Your task to perform on an android device: turn off javascript in the chrome app Image 0: 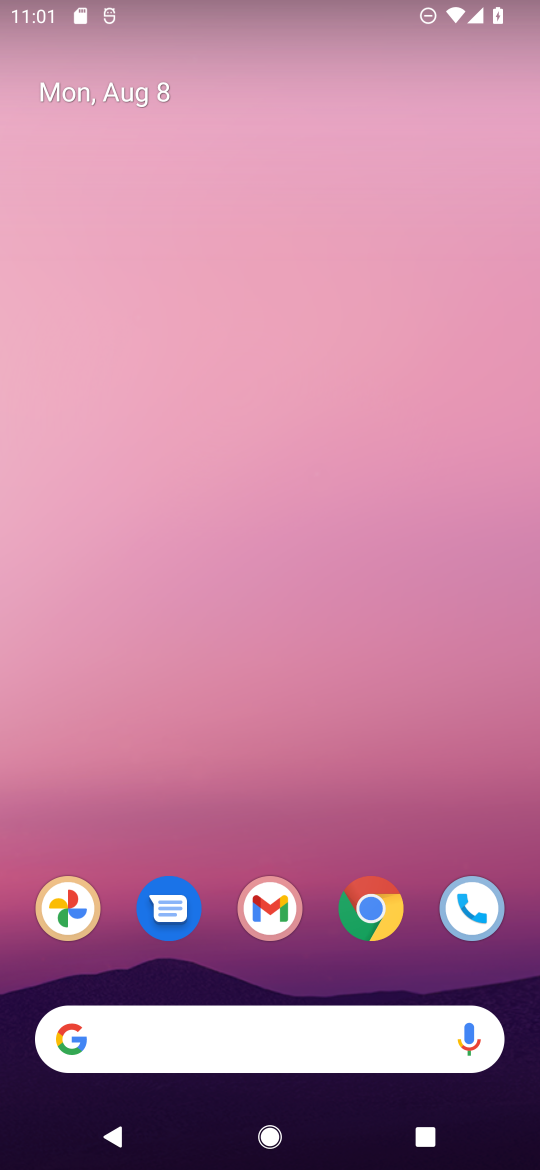
Step 0: click (377, 904)
Your task to perform on an android device: turn off javascript in the chrome app Image 1: 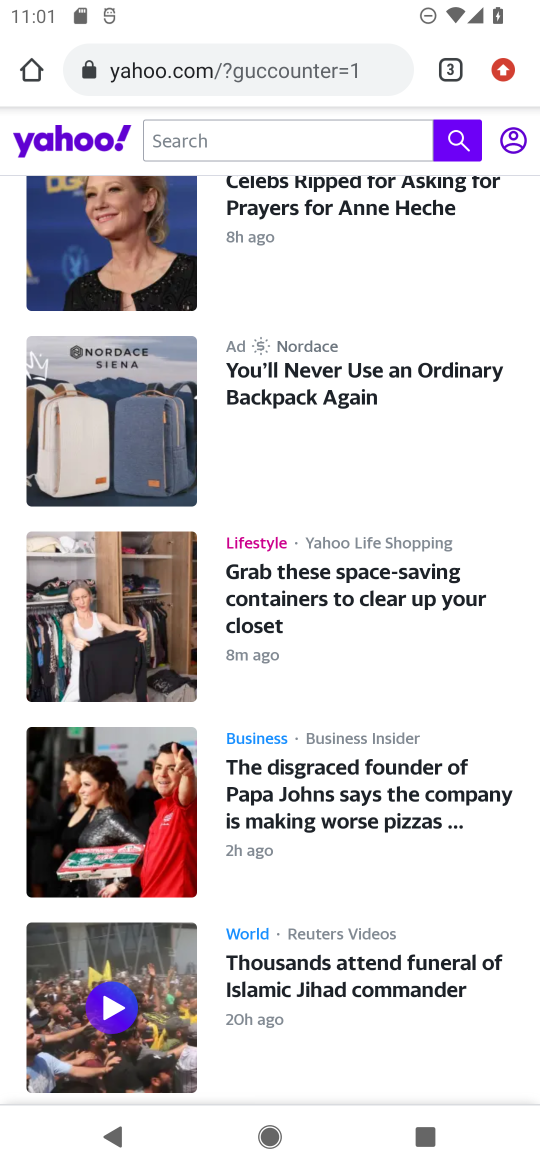
Step 1: press home button
Your task to perform on an android device: turn off javascript in the chrome app Image 2: 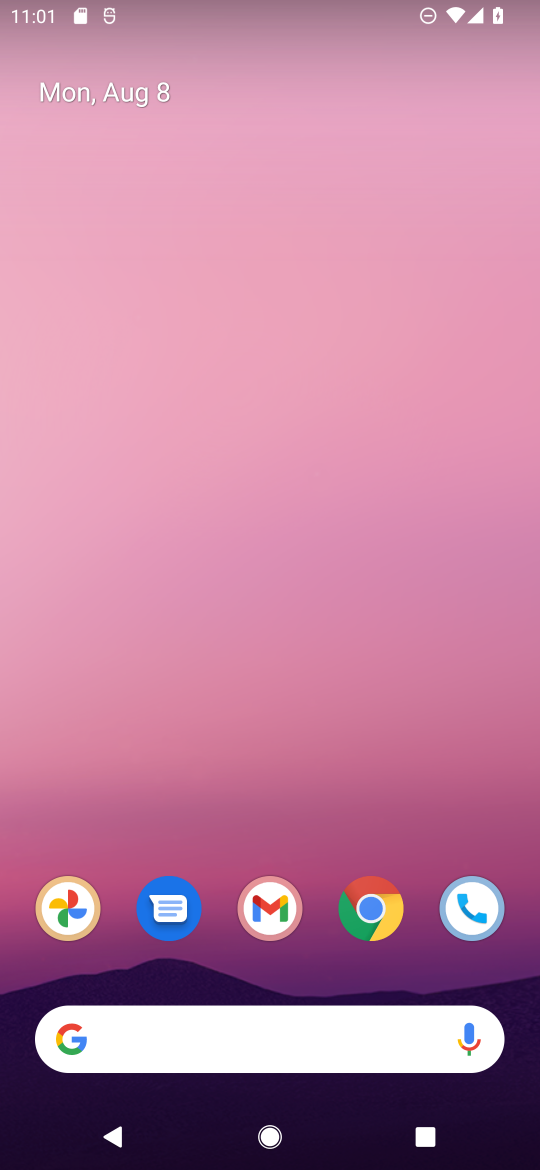
Step 2: click (368, 900)
Your task to perform on an android device: turn off javascript in the chrome app Image 3: 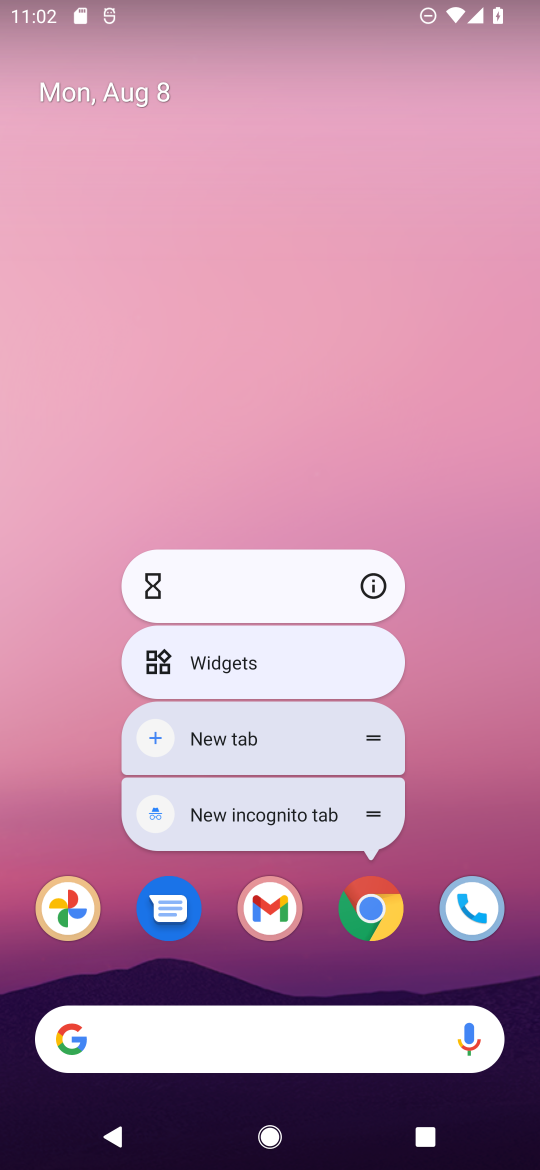
Step 3: click (427, 838)
Your task to perform on an android device: turn off javascript in the chrome app Image 4: 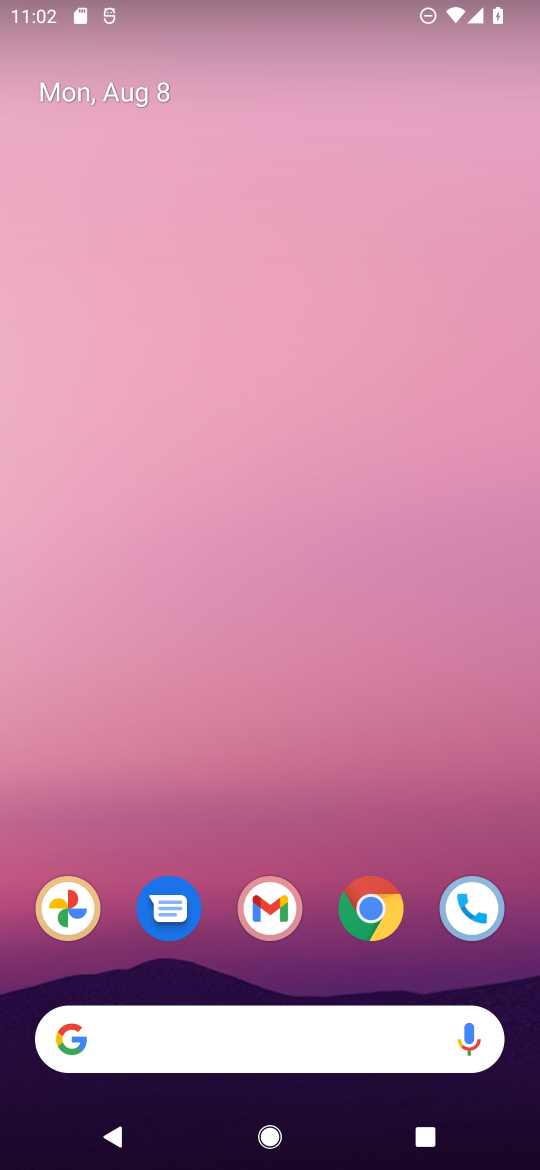
Step 4: drag from (478, 811) to (537, 160)
Your task to perform on an android device: turn off javascript in the chrome app Image 5: 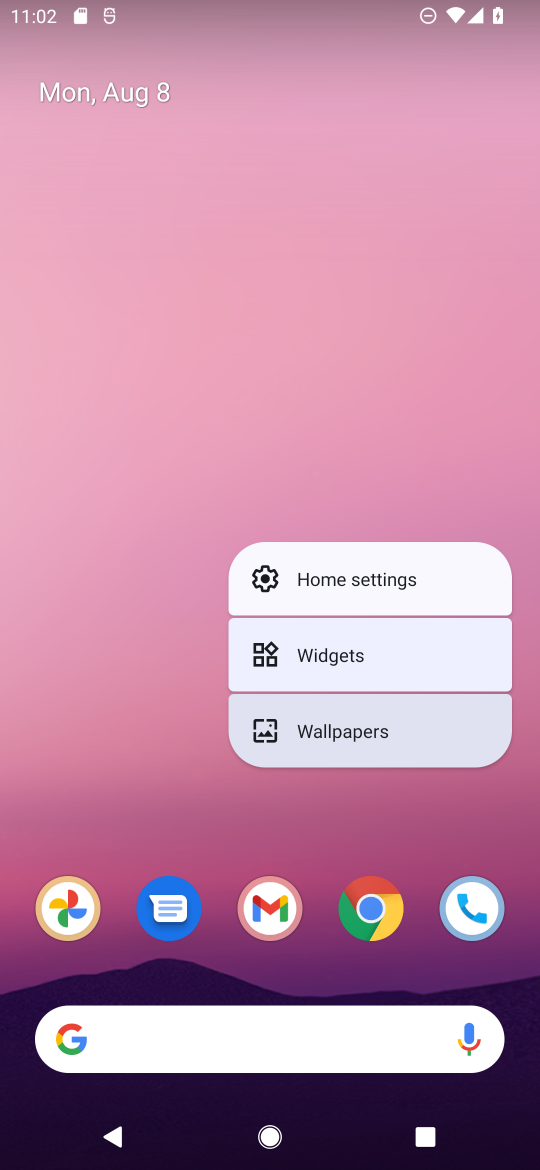
Step 5: click (161, 742)
Your task to perform on an android device: turn off javascript in the chrome app Image 6: 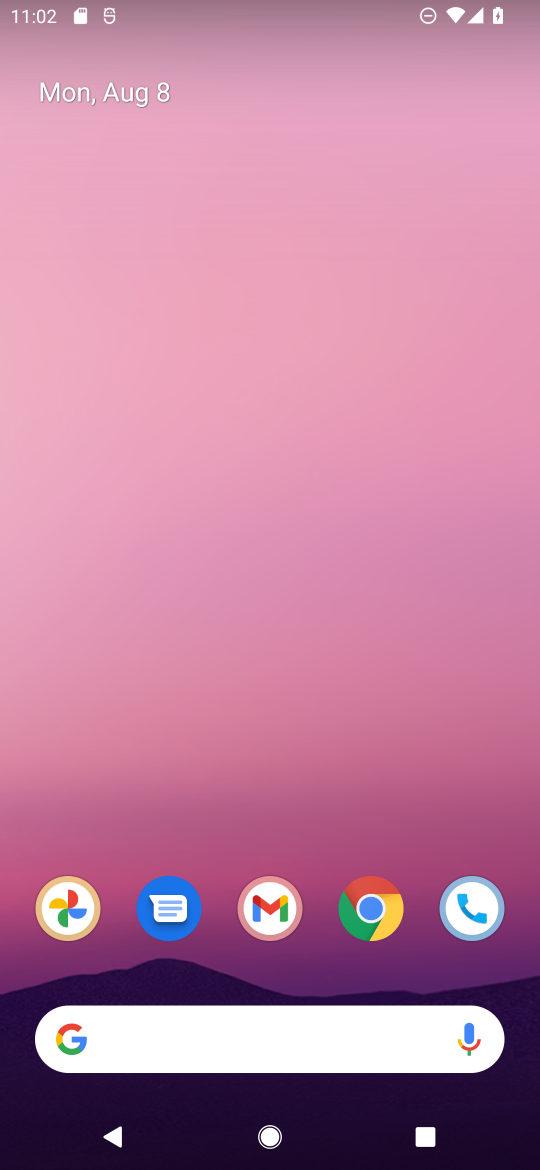
Step 6: drag from (196, 816) to (331, 23)
Your task to perform on an android device: turn off javascript in the chrome app Image 7: 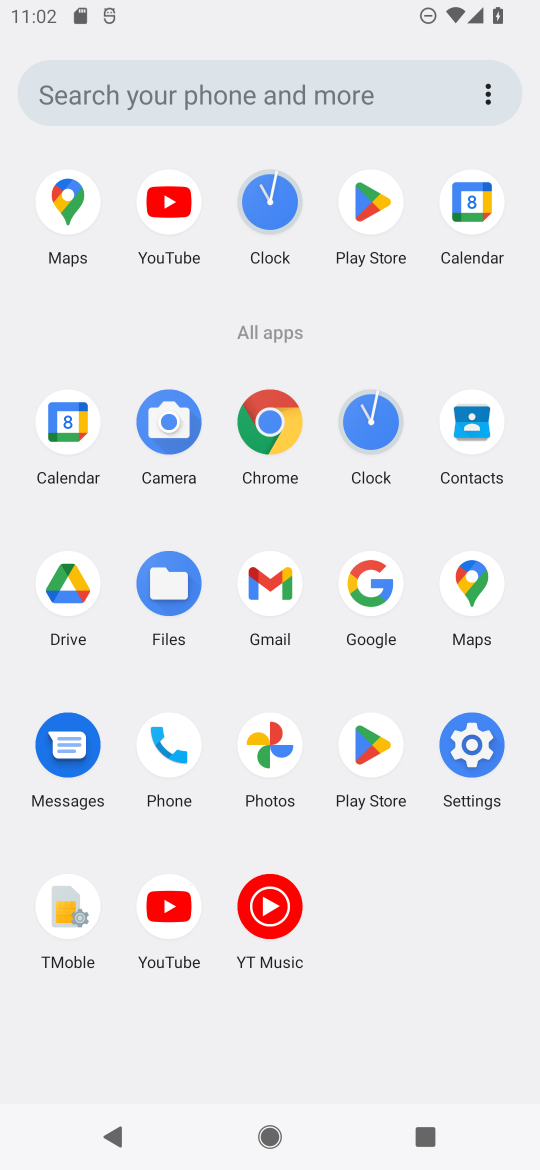
Step 7: click (260, 410)
Your task to perform on an android device: turn off javascript in the chrome app Image 8: 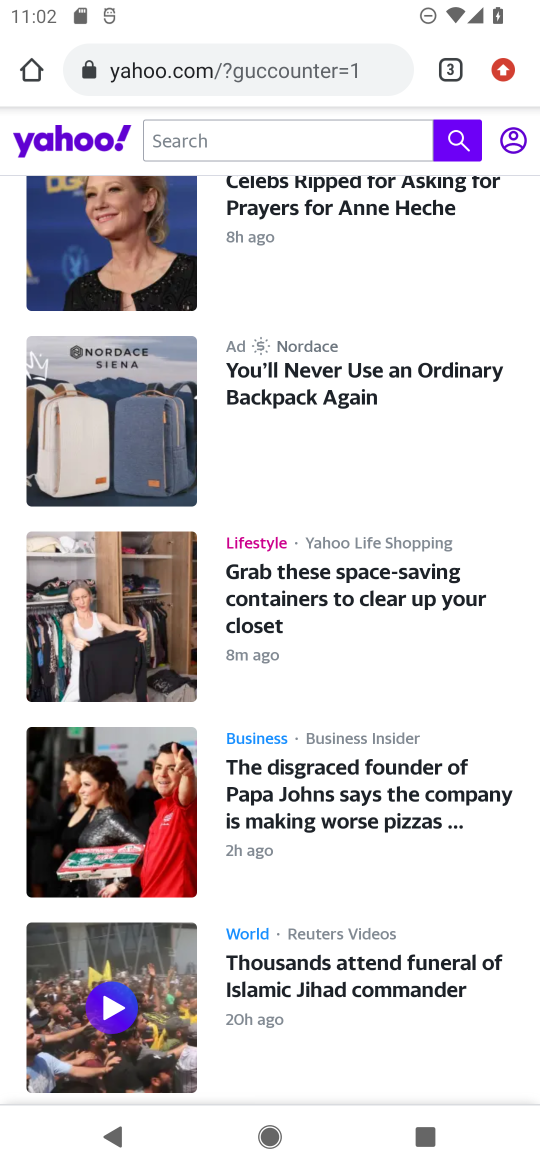
Step 8: click (500, 68)
Your task to perform on an android device: turn off javascript in the chrome app Image 9: 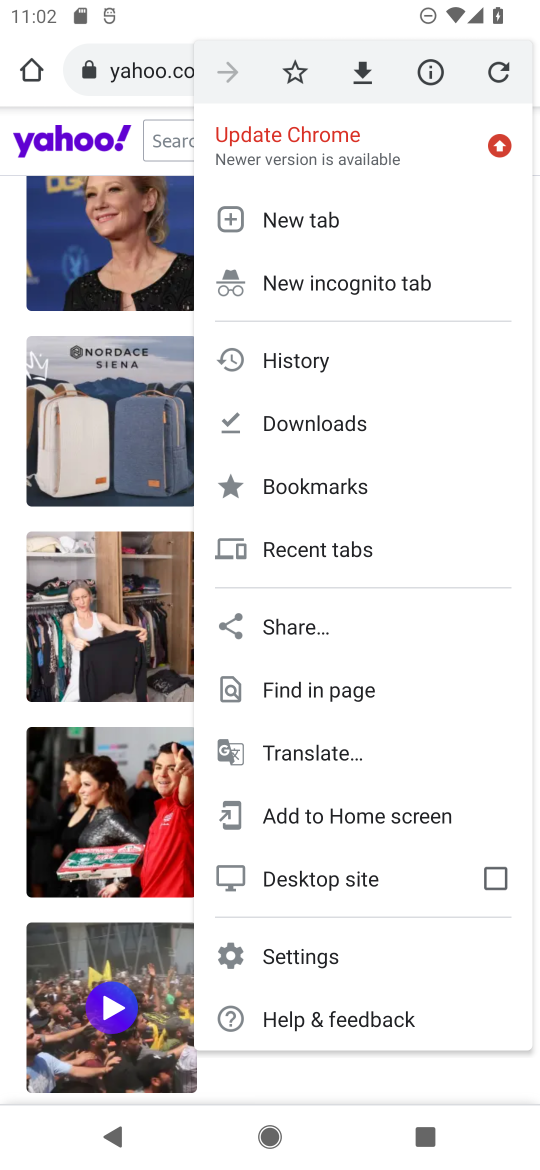
Step 9: click (296, 943)
Your task to perform on an android device: turn off javascript in the chrome app Image 10: 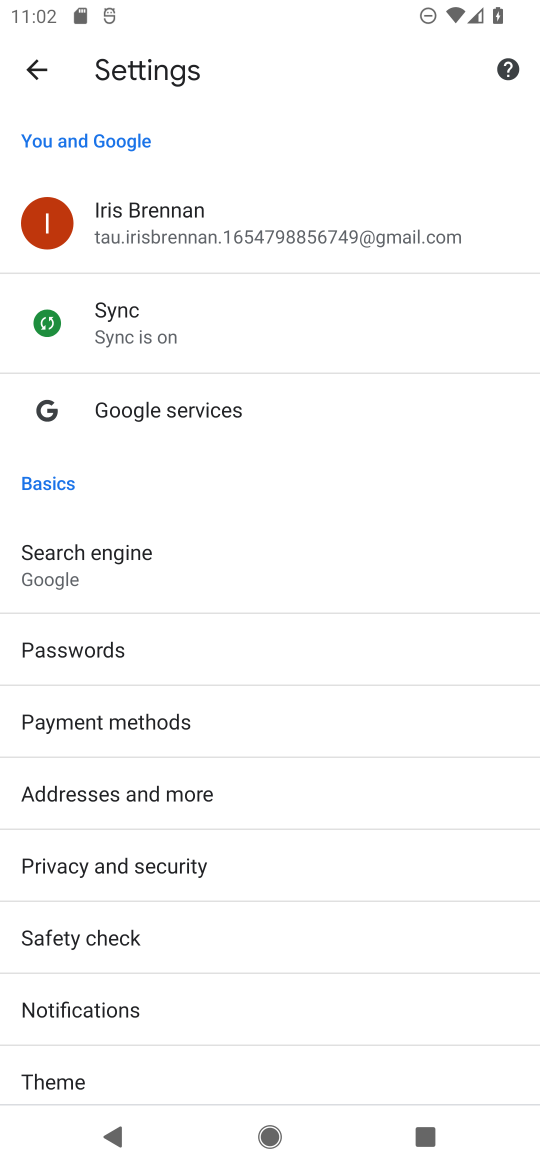
Step 10: drag from (193, 990) to (307, 227)
Your task to perform on an android device: turn off javascript in the chrome app Image 11: 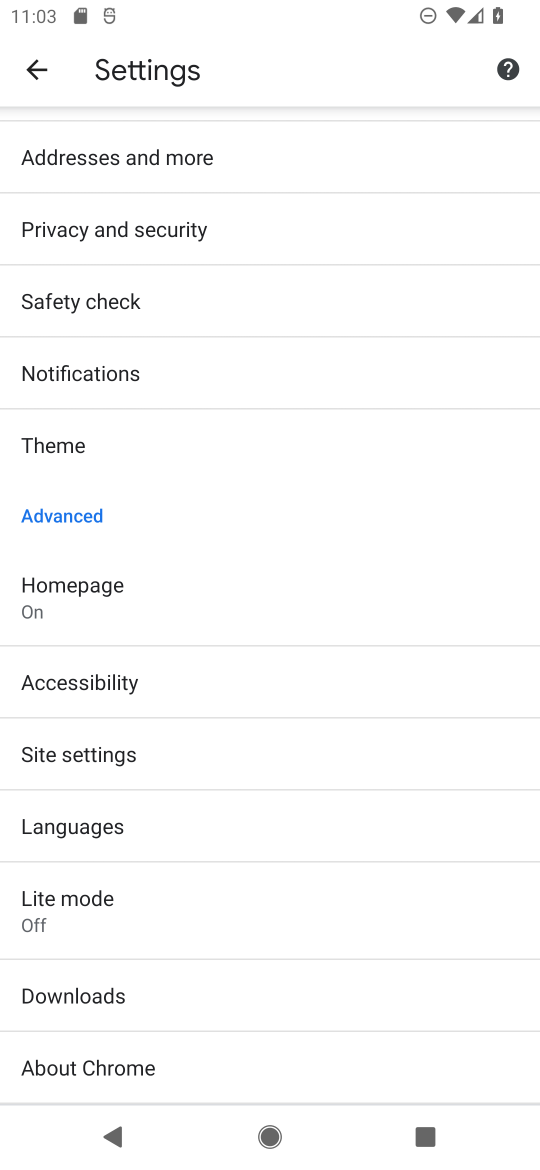
Step 11: click (162, 751)
Your task to perform on an android device: turn off javascript in the chrome app Image 12: 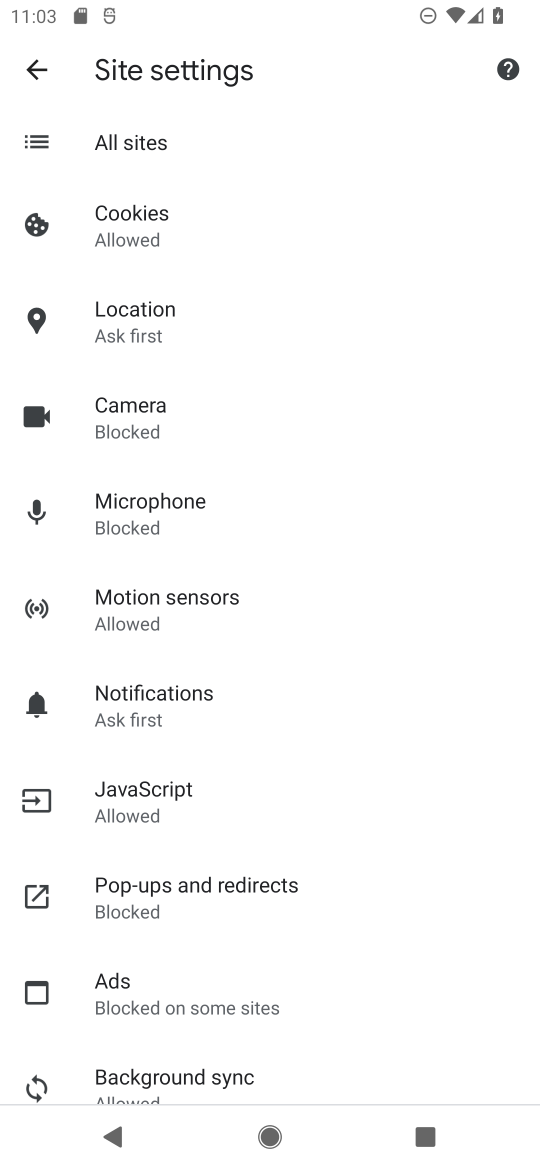
Step 12: click (186, 796)
Your task to perform on an android device: turn off javascript in the chrome app Image 13: 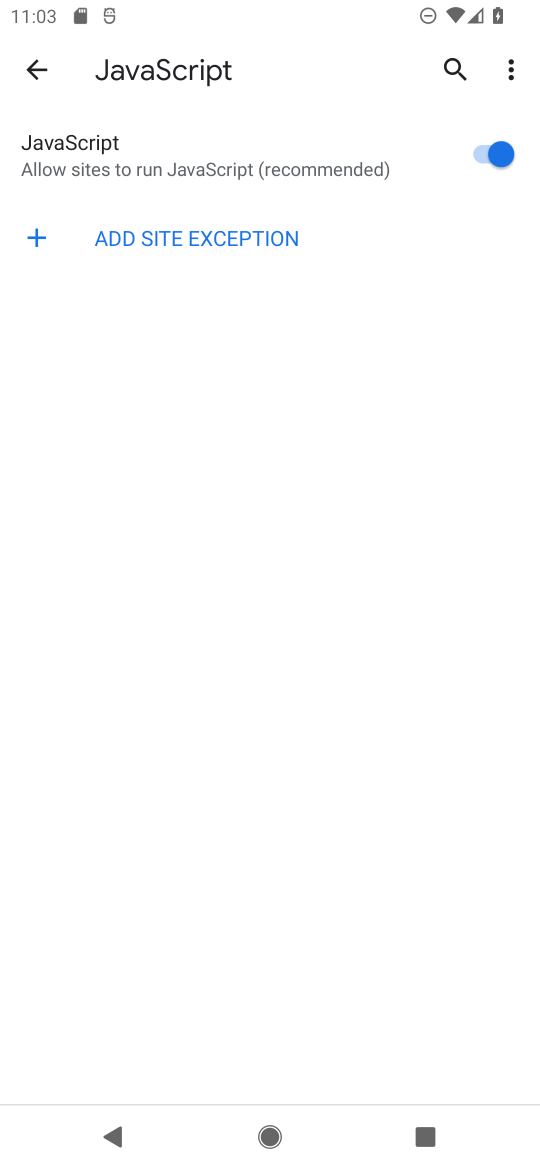
Step 13: click (499, 141)
Your task to perform on an android device: turn off javascript in the chrome app Image 14: 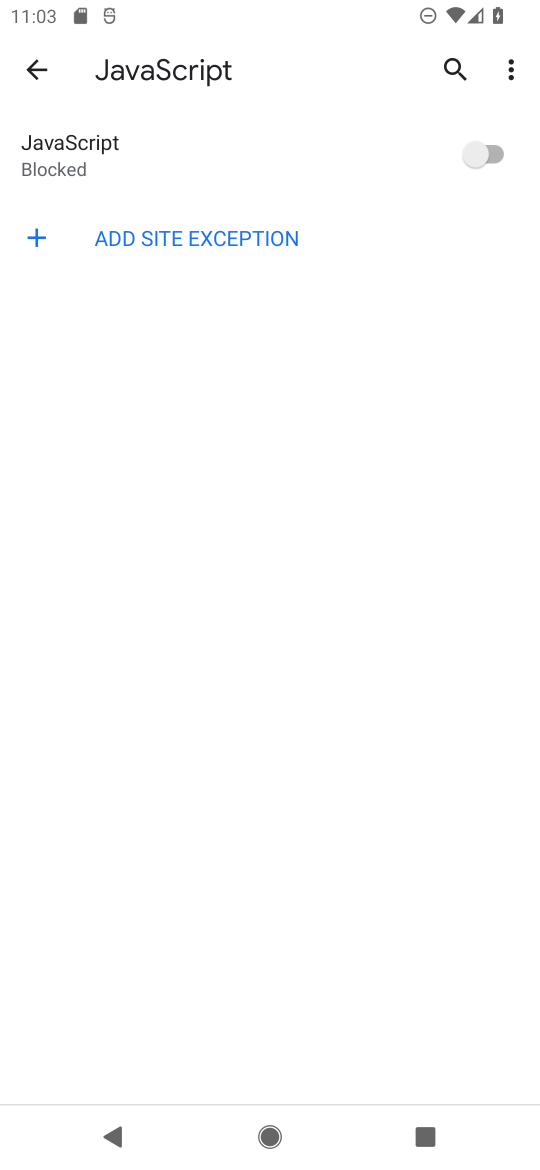
Step 14: task complete